Your task to perform on an android device: Go to Yahoo.com Image 0: 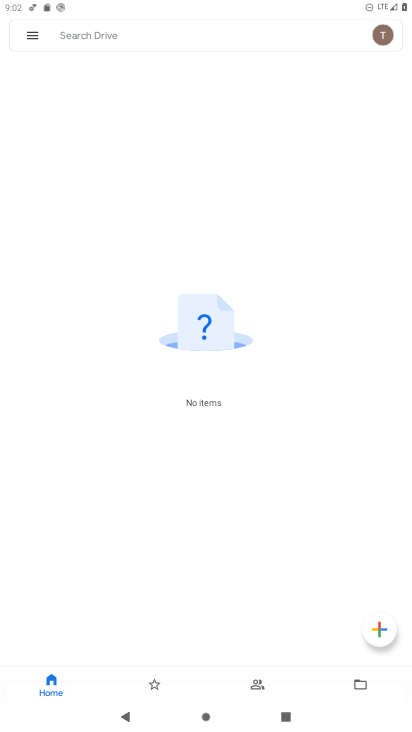
Step 0: press home button
Your task to perform on an android device: Go to Yahoo.com Image 1: 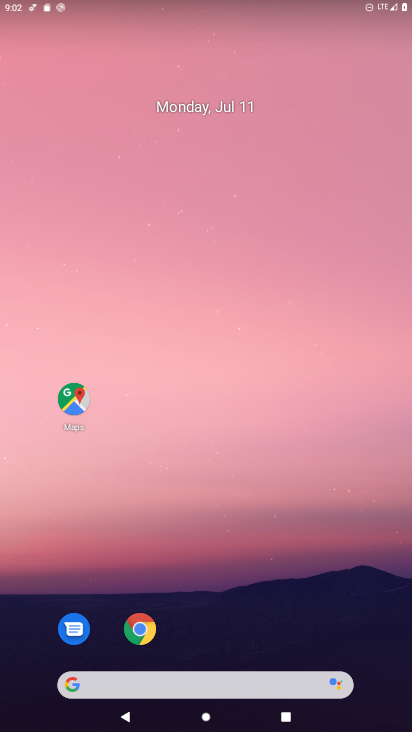
Step 1: click (131, 638)
Your task to perform on an android device: Go to Yahoo.com Image 2: 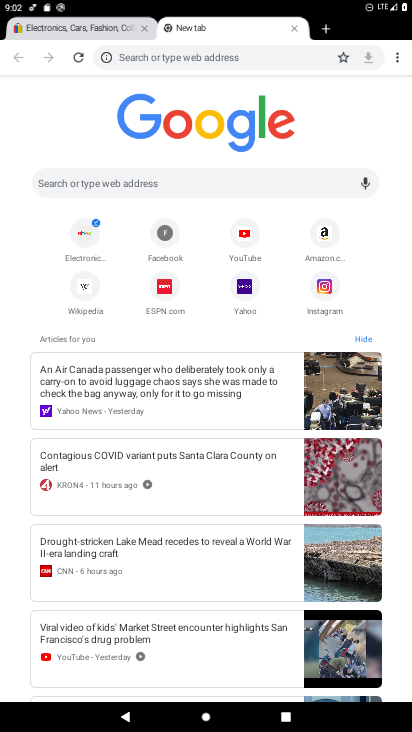
Step 2: click (241, 293)
Your task to perform on an android device: Go to Yahoo.com Image 3: 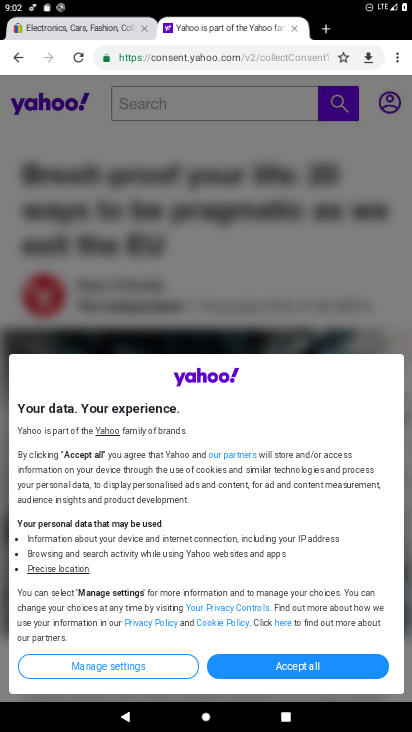
Step 3: task complete